Your task to perform on an android device: Play the last video I watched on Youtube Image 0: 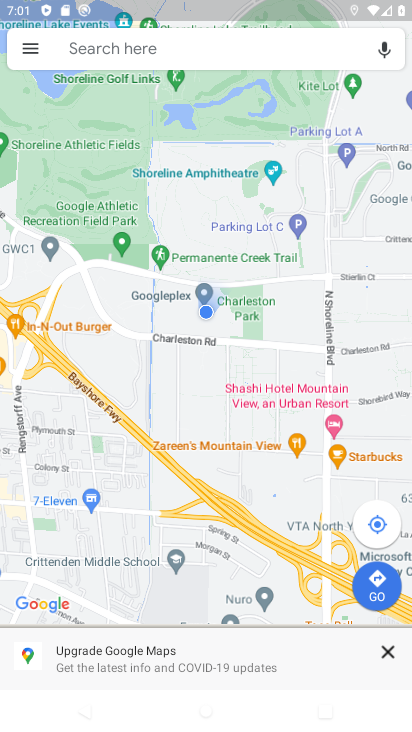
Step 0: press home button
Your task to perform on an android device: Play the last video I watched on Youtube Image 1: 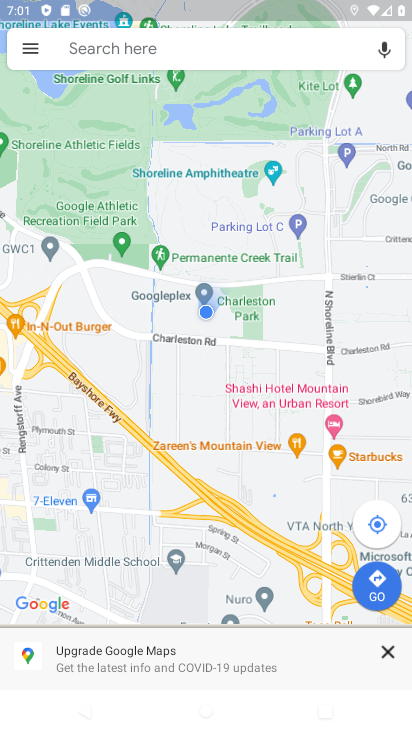
Step 1: drag from (374, 591) to (281, 83)
Your task to perform on an android device: Play the last video I watched on Youtube Image 2: 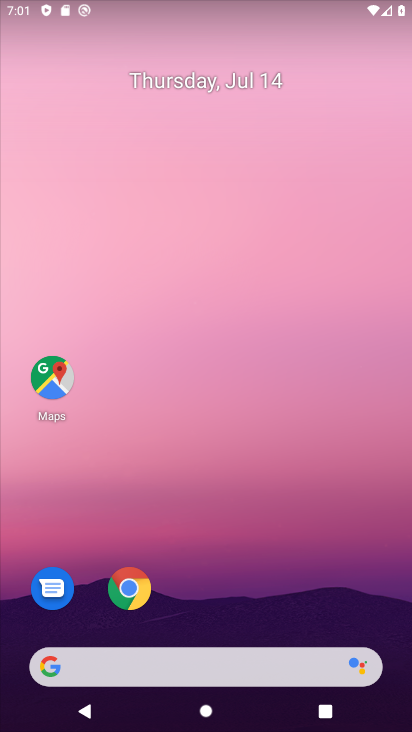
Step 2: drag from (391, 619) to (217, 10)
Your task to perform on an android device: Play the last video I watched on Youtube Image 3: 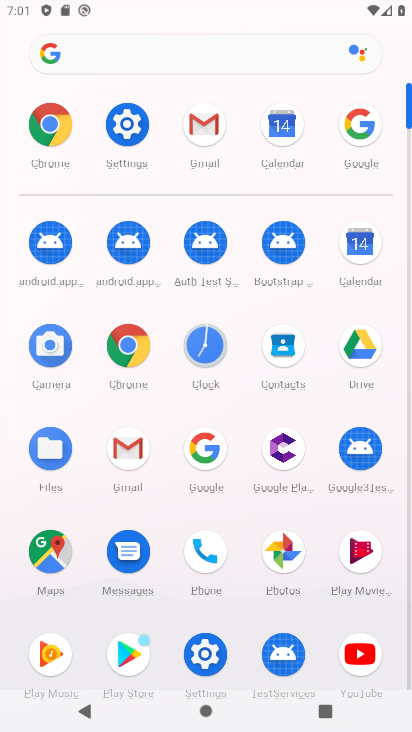
Step 3: click (358, 670)
Your task to perform on an android device: Play the last video I watched on Youtube Image 4: 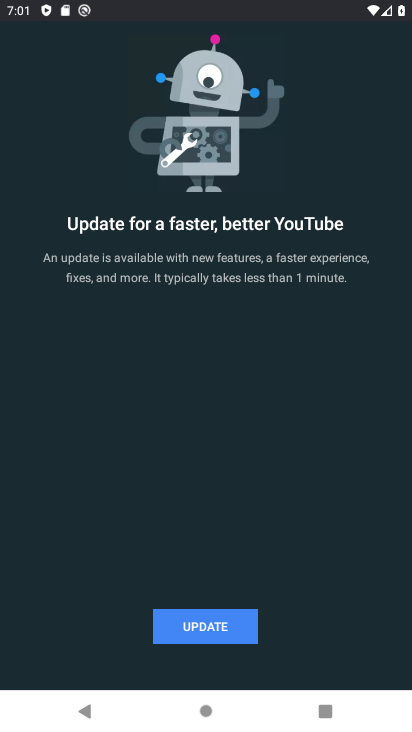
Step 4: click (201, 631)
Your task to perform on an android device: Play the last video I watched on Youtube Image 5: 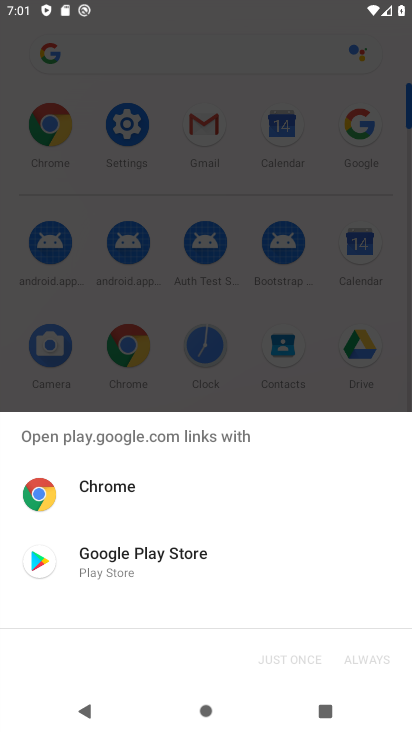
Step 5: click (79, 565)
Your task to perform on an android device: Play the last video I watched on Youtube Image 6: 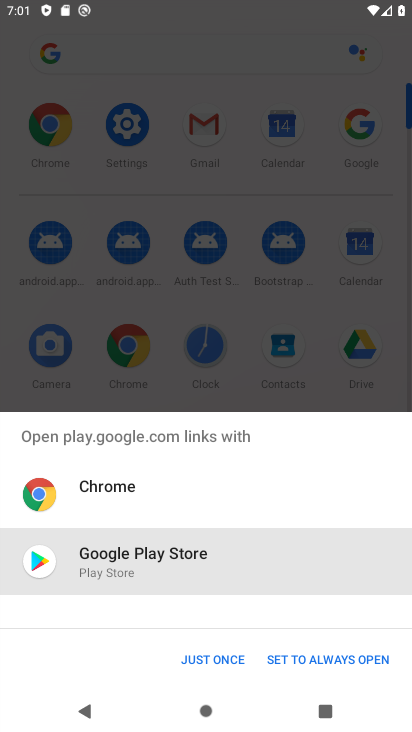
Step 6: click (223, 652)
Your task to perform on an android device: Play the last video I watched on Youtube Image 7: 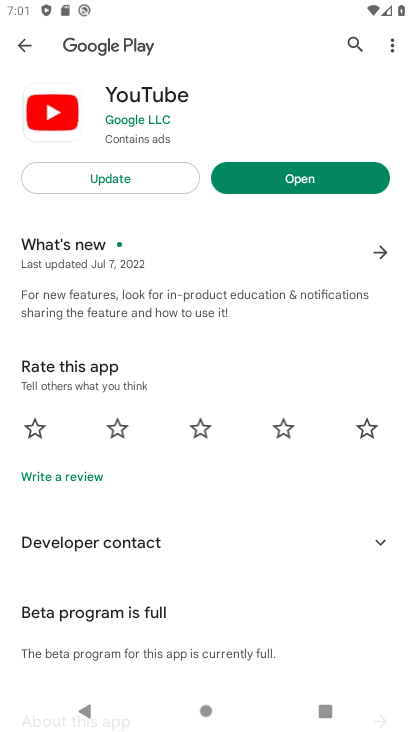
Step 7: click (71, 183)
Your task to perform on an android device: Play the last video I watched on Youtube Image 8: 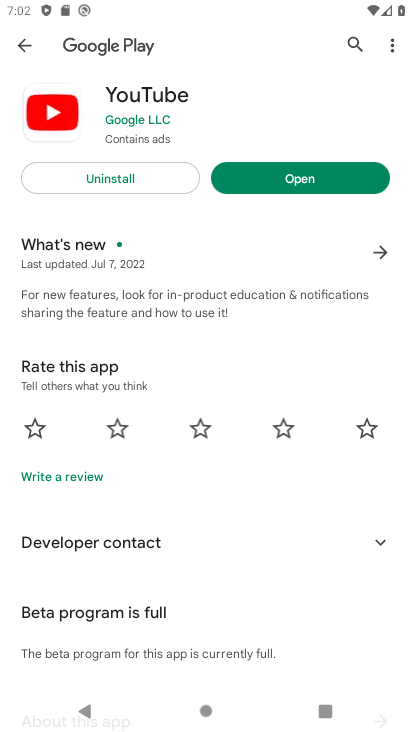
Step 8: click (292, 167)
Your task to perform on an android device: Play the last video I watched on Youtube Image 9: 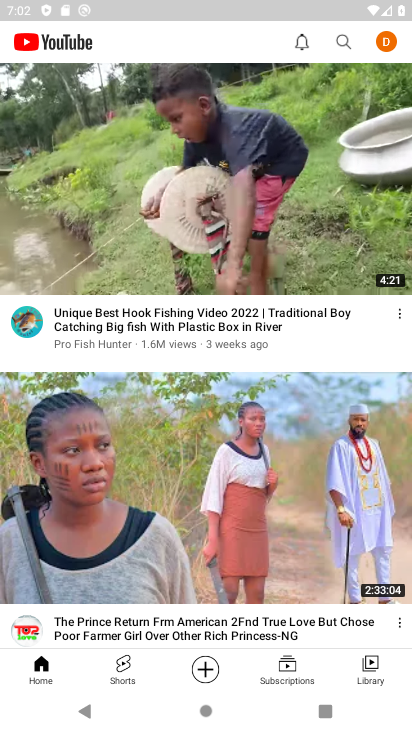
Step 9: click (359, 659)
Your task to perform on an android device: Play the last video I watched on Youtube Image 10: 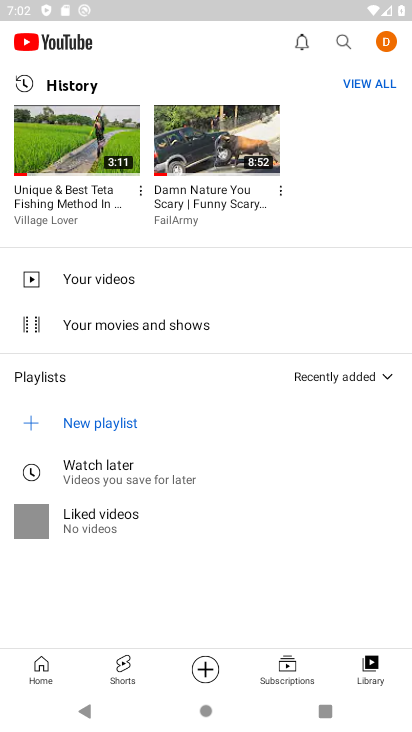
Step 10: click (76, 142)
Your task to perform on an android device: Play the last video I watched on Youtube Image 11: 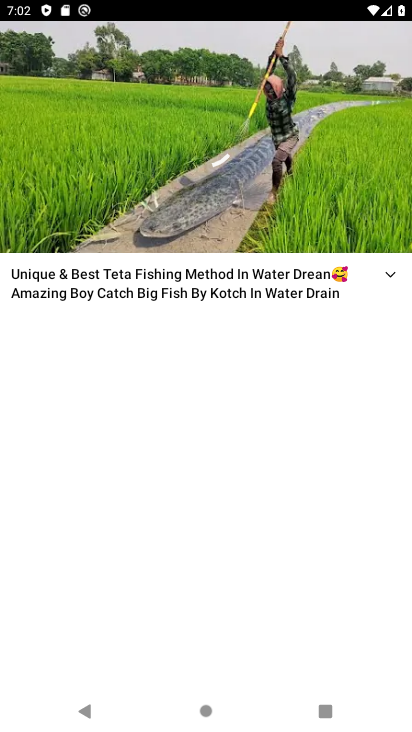
Step 11: click (199, 117)
Your task to perform on an android device: Play the last video I watched on Youtube Image 12: 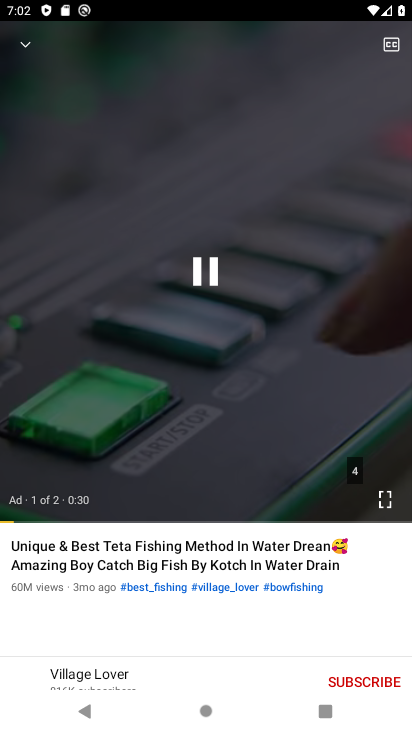
Step 12: click (186, 127)
Your task to perform on an android device: Play the last video I watched on Youtube Image 13: 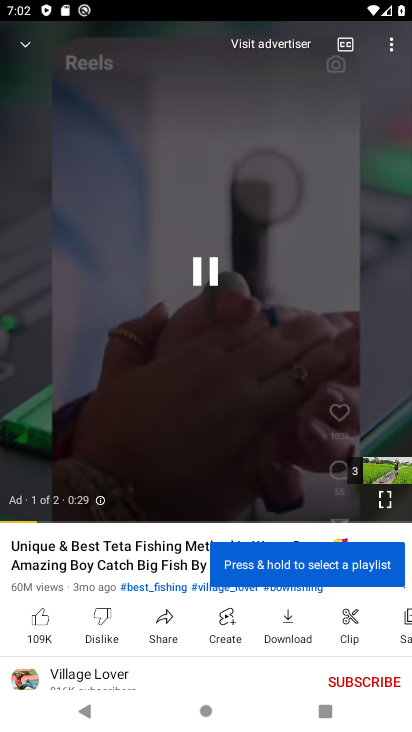
Step 13: click (216, 292)
Your task to perform on an android device: Play the last video I watched on Youtube Image 14: 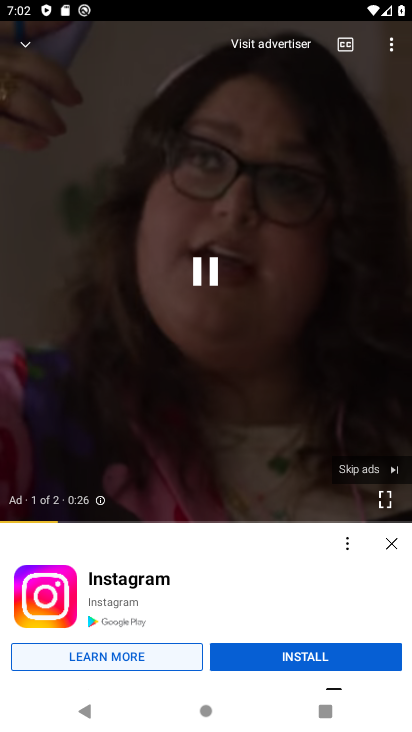
Step 14: click (204, 270)
Your task to perform on an android device: Play the last video I watched on Youtube Image 15: 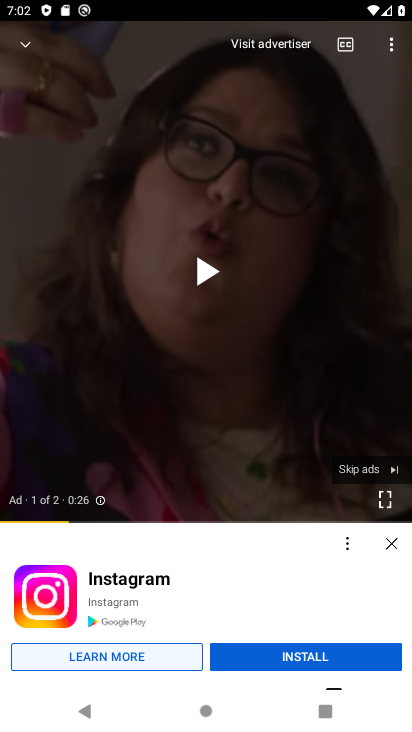
Step 15: task complete